Your task to perform on an android device: stop showing notifications on the lock screen Image 0: 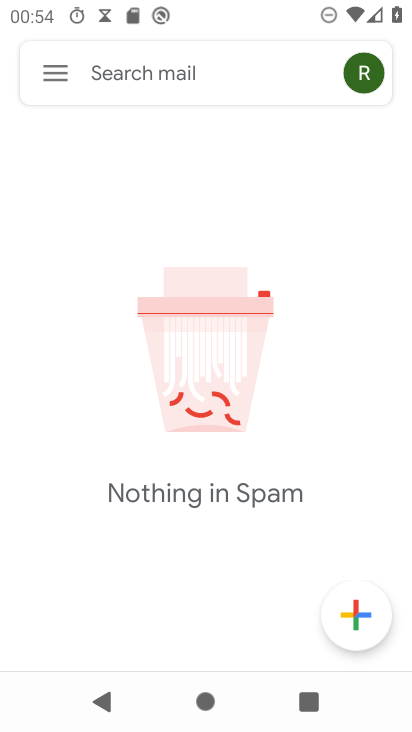
Step 0: press home button
Your task to perform on an android device: stop showing notifications on the lock screen Image 1: 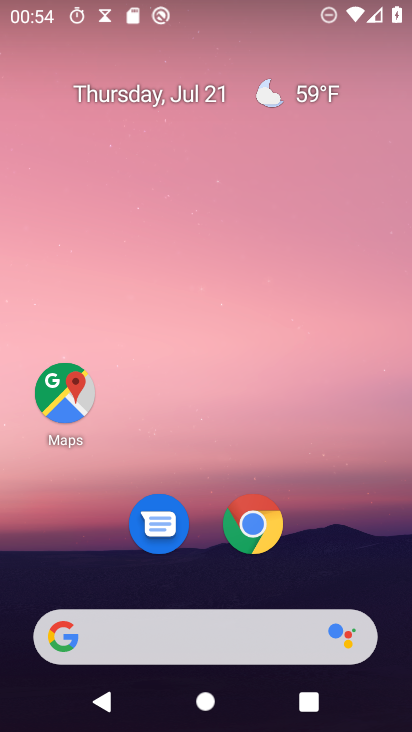
Step 1: drag from (142, 639) to (360, 60)
Your task to perform on an android device: stop showing notifications on the lock screen Image 2: 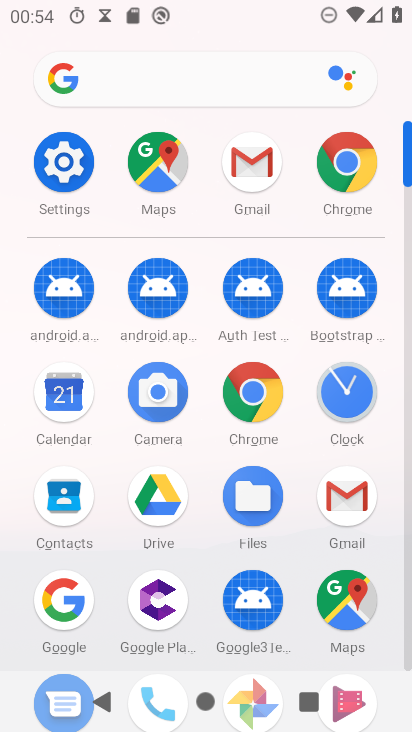
Step 2: click (55, 175)
Your task to perform on an android device: stop showing notifications on the lock screen Image 3: 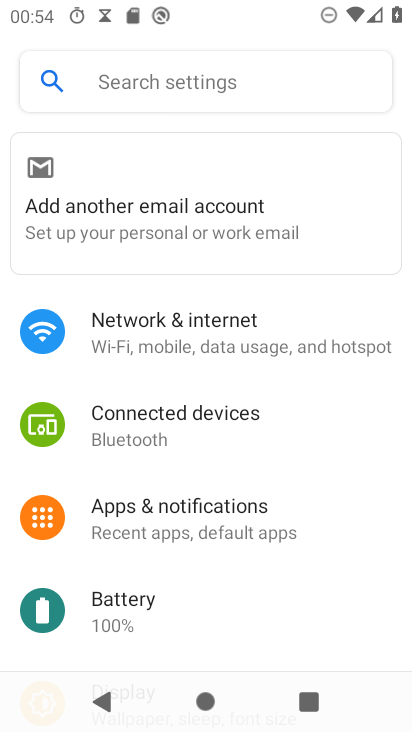
Step 3: click (232, 513)
Your task to perform on an android device: stop showing notifications on the lock screen Image 4: 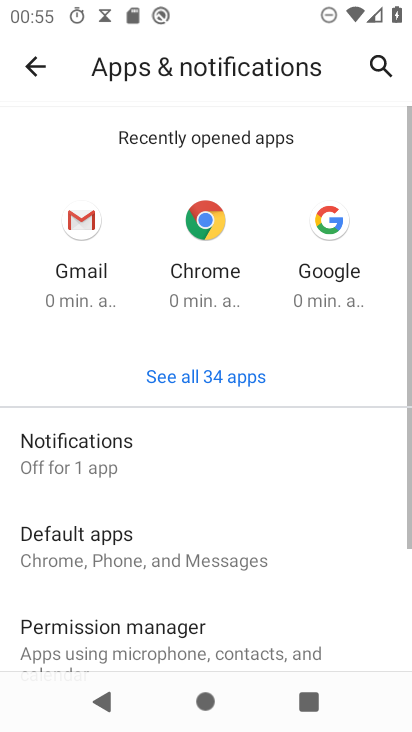
Step 4: click (84, 468)
Your task to perform on an android device: stop showing notifications on the lock screen Image 5: 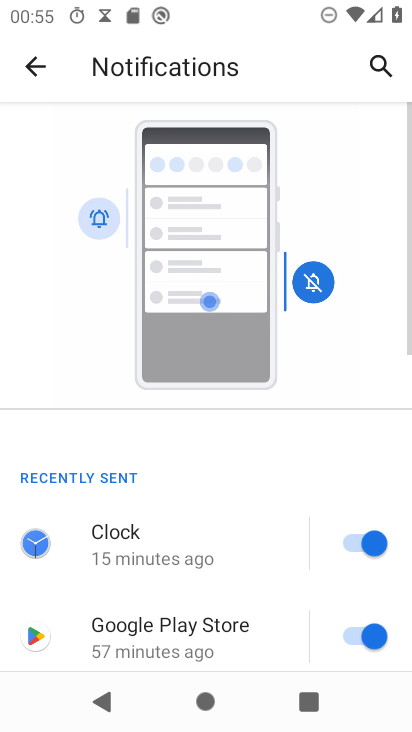
Step 5: drag from (226, 639) to (334, 180)
Your task to perform on an android device: stop showing notifications on the lock screen Image 6: 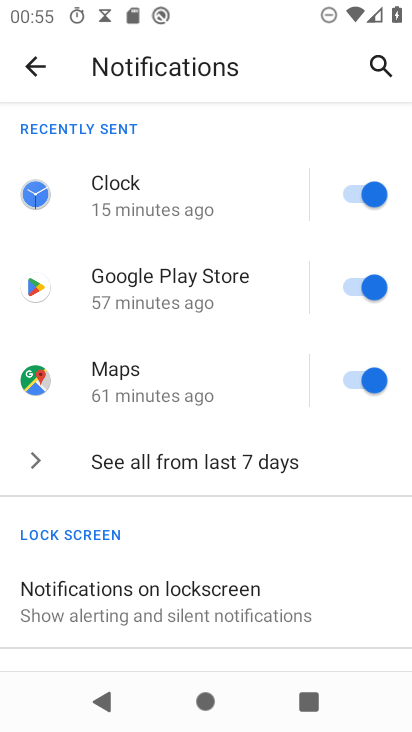
Step 6: click (195, 584)
Your task to perform on an android device: stop showing notifications on the lock screen Image 7: 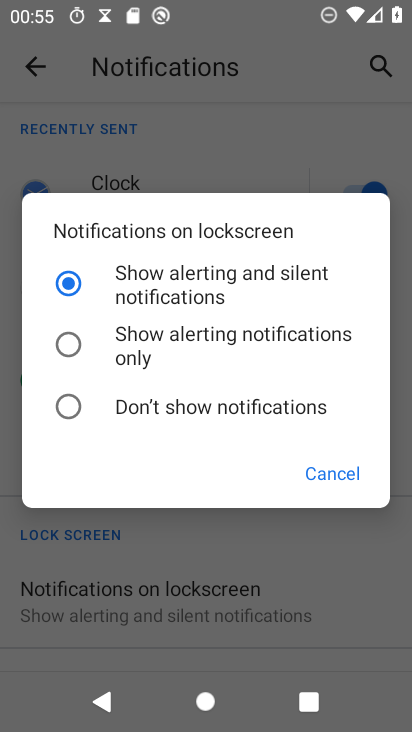
Step 7: click (67, 399)
Your task to perform on an android device: stop showing notifications on the lock screen Image 8: 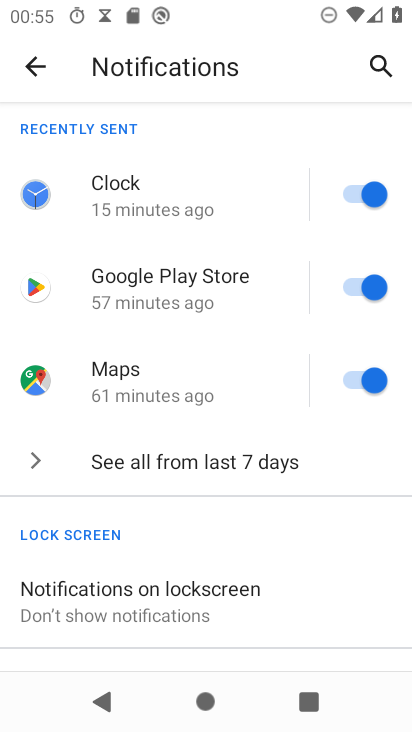
Step 8: task complete